Your task to perform on an android device: Go to sound settings Image 0: 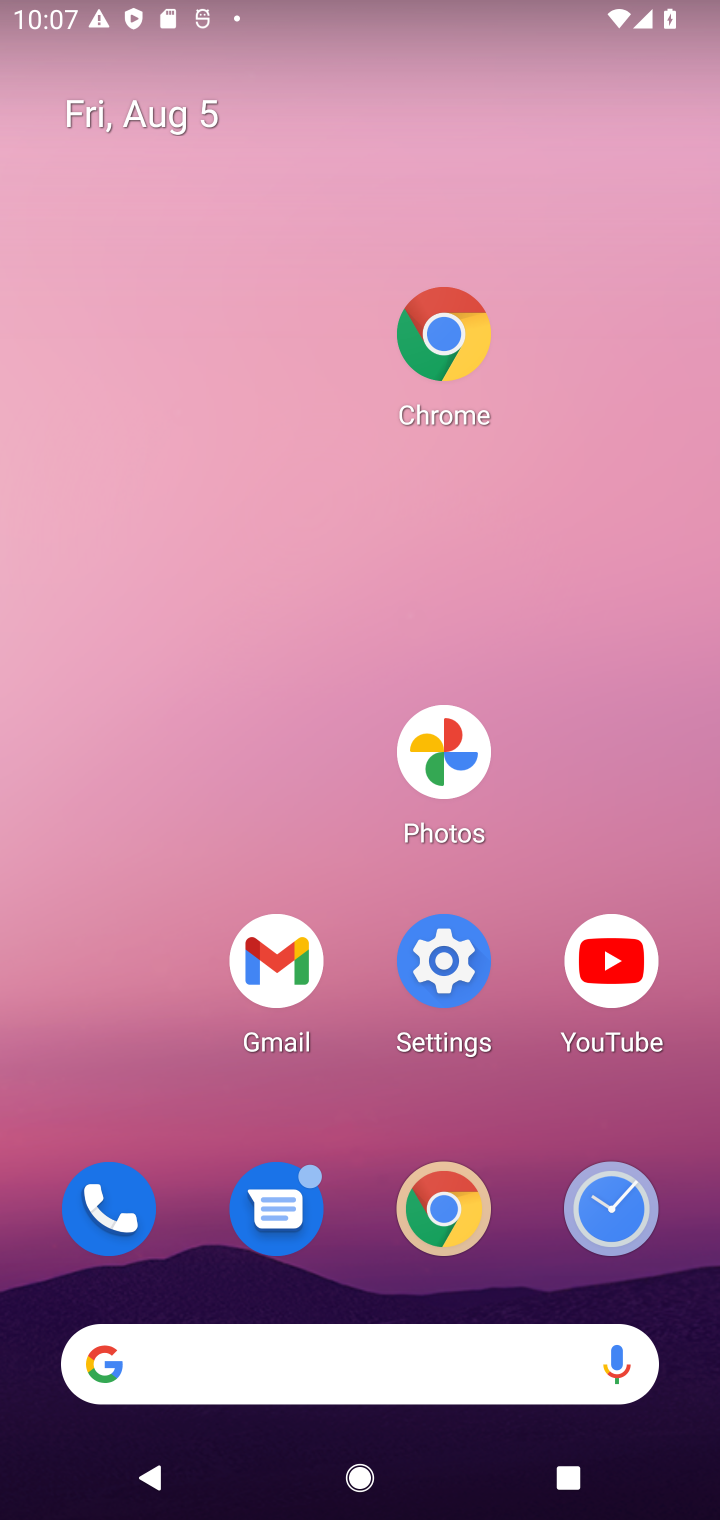
Step 0: drag from (359, 1309) to (417, 252)
Your task to perform on an android device: Go to sound settings Image 1: 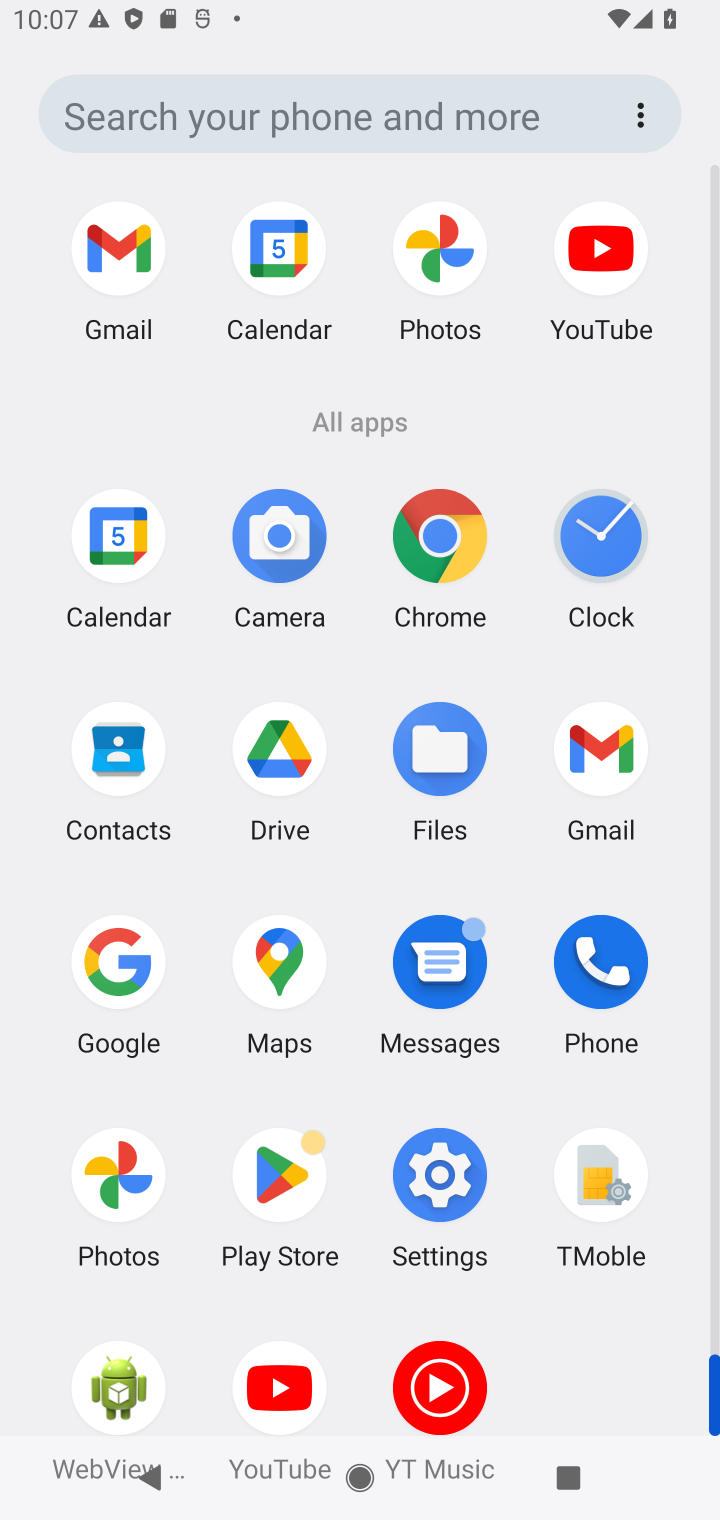
Step 1: click (443, 1175)
Your task to perform on an android device: Go to sound settings Image 2: 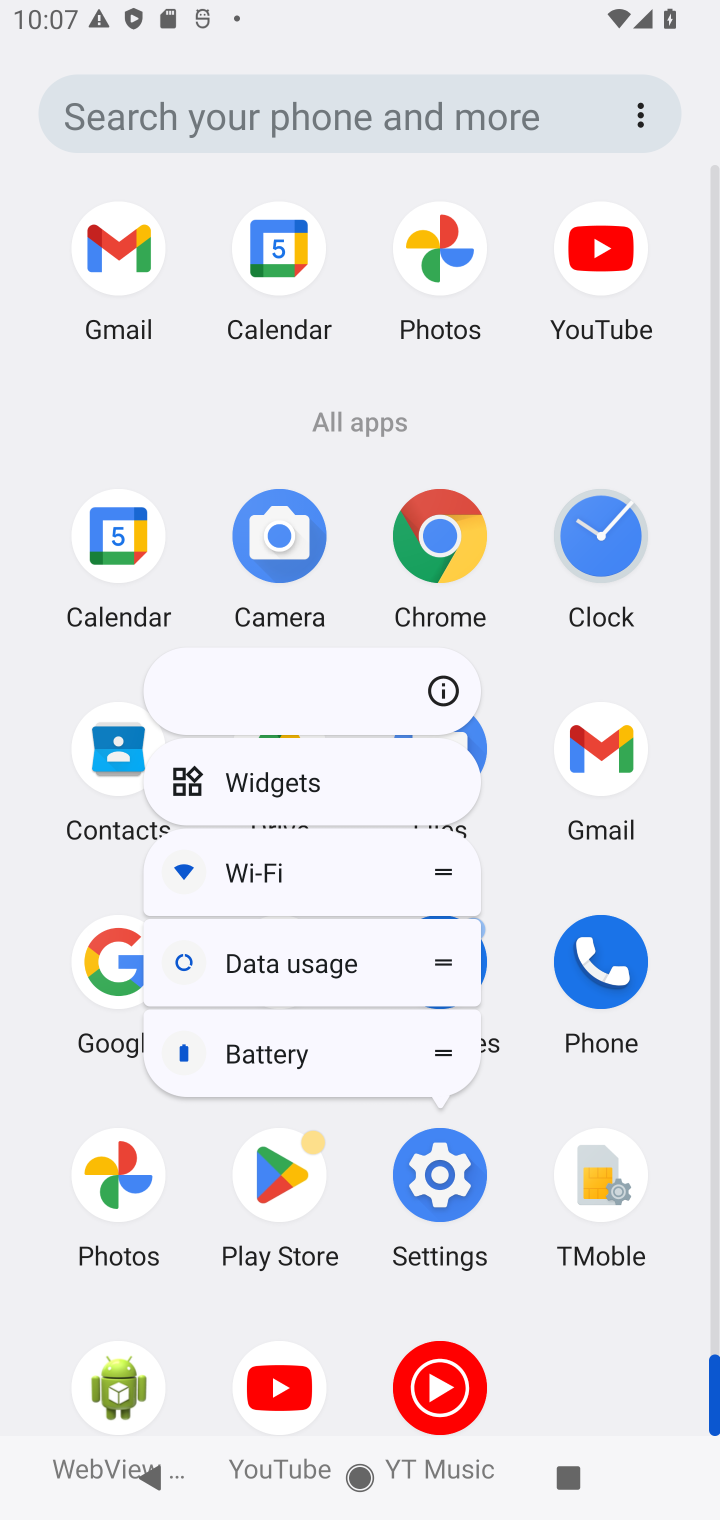
Step 2: click (447, 682)
Your task to perform on an android device: Go to sound settings Image 3: 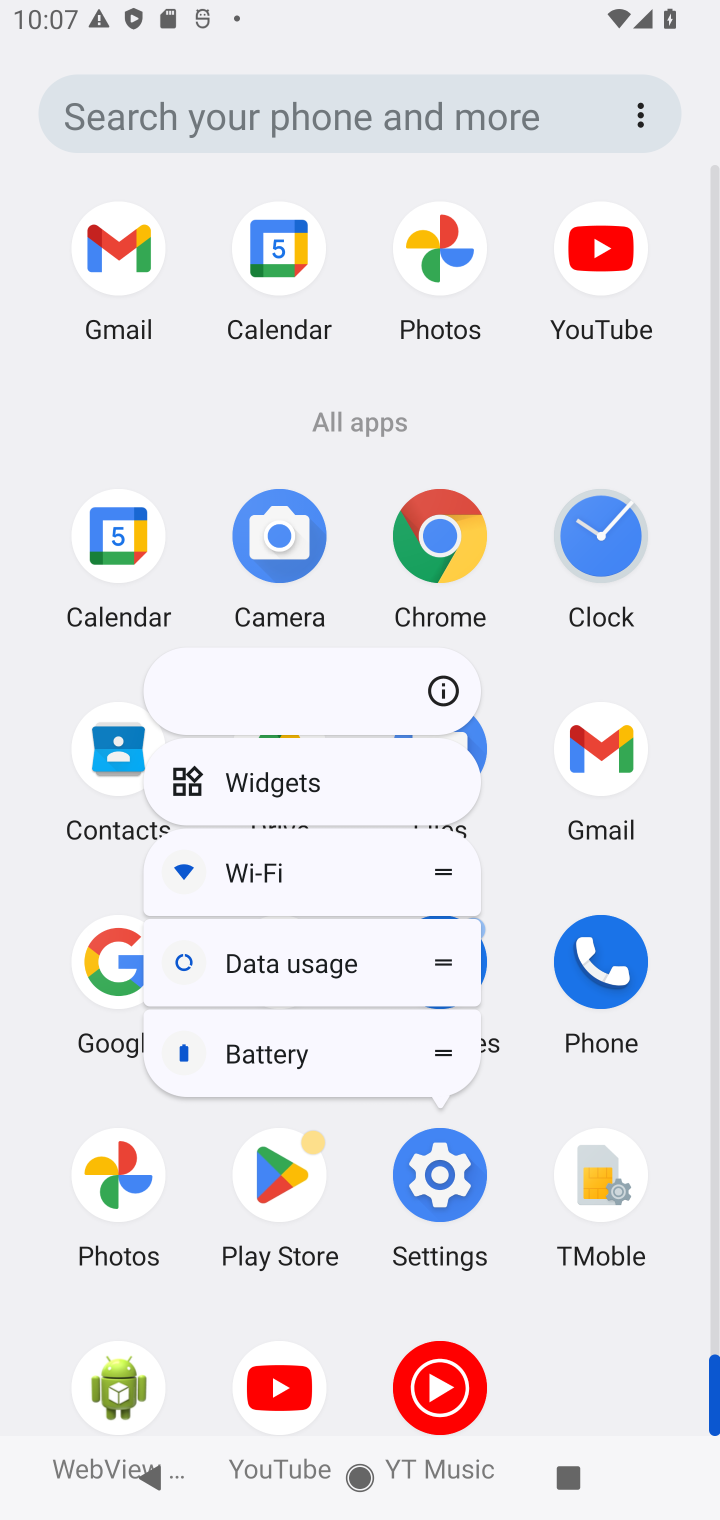
Step 3: click (443, 682)
Your task to perform on an android device: Go to sound settings Image 4: 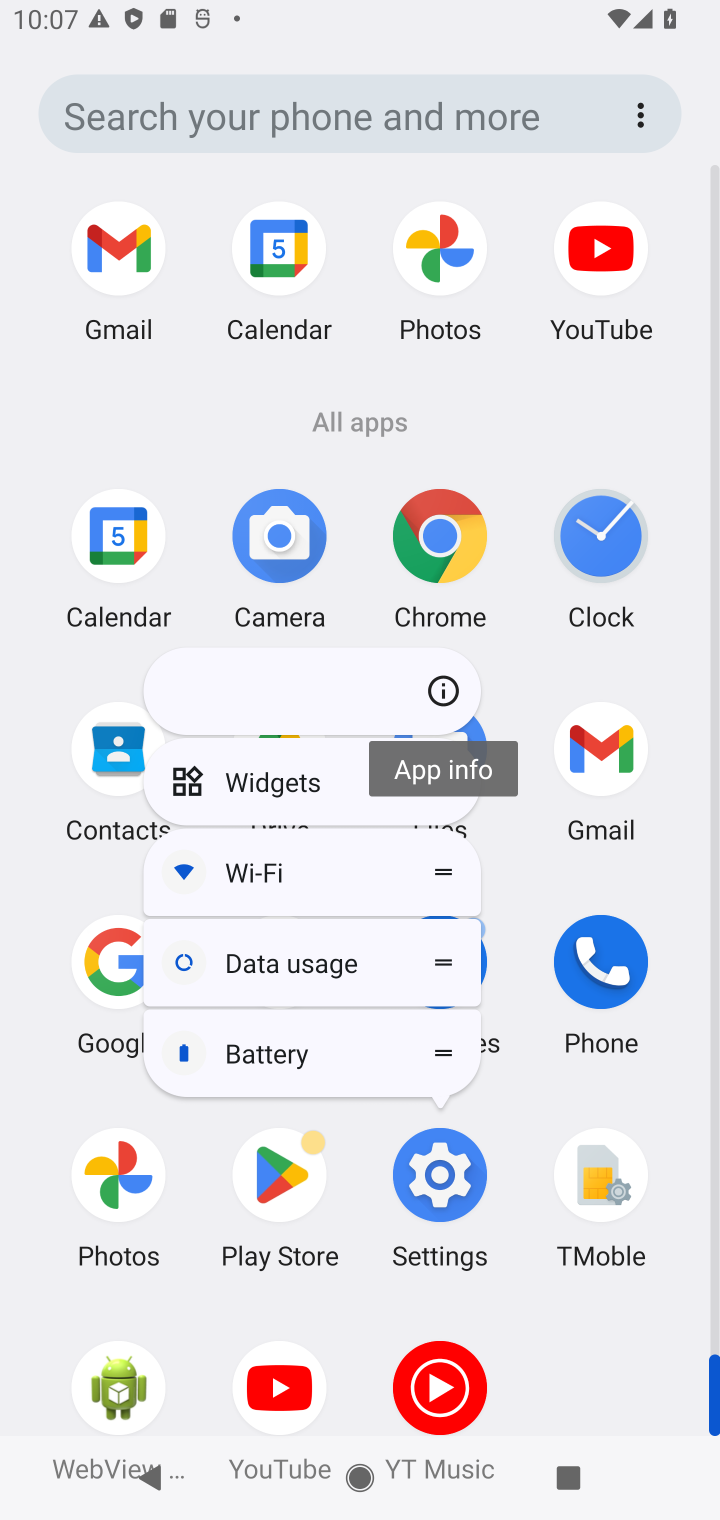
Step 4: click (443, 682)
Your task to perform on an android device: Go to sound settings Image 5: 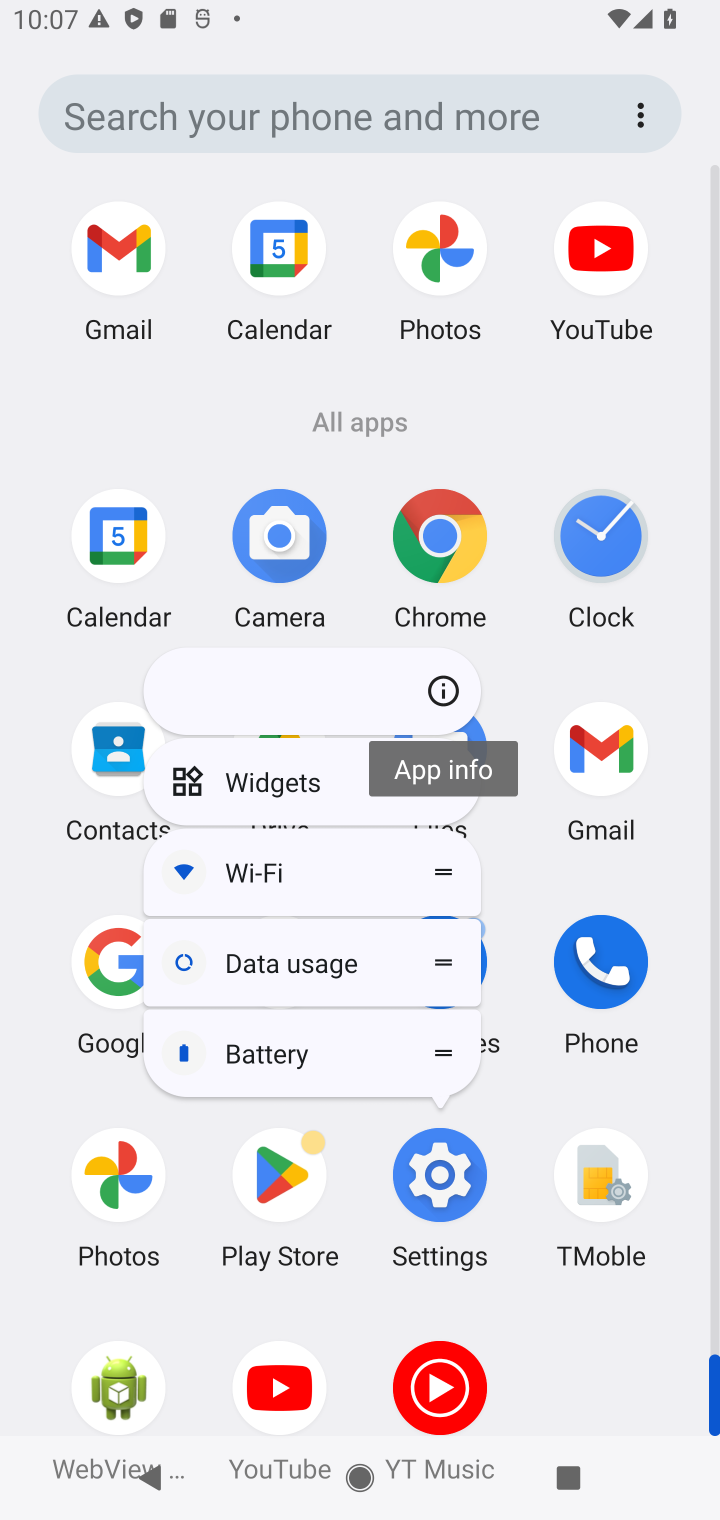
Step 5: click (445, 684)
Your task to perform on an android device: Go to sound settings Image 6: 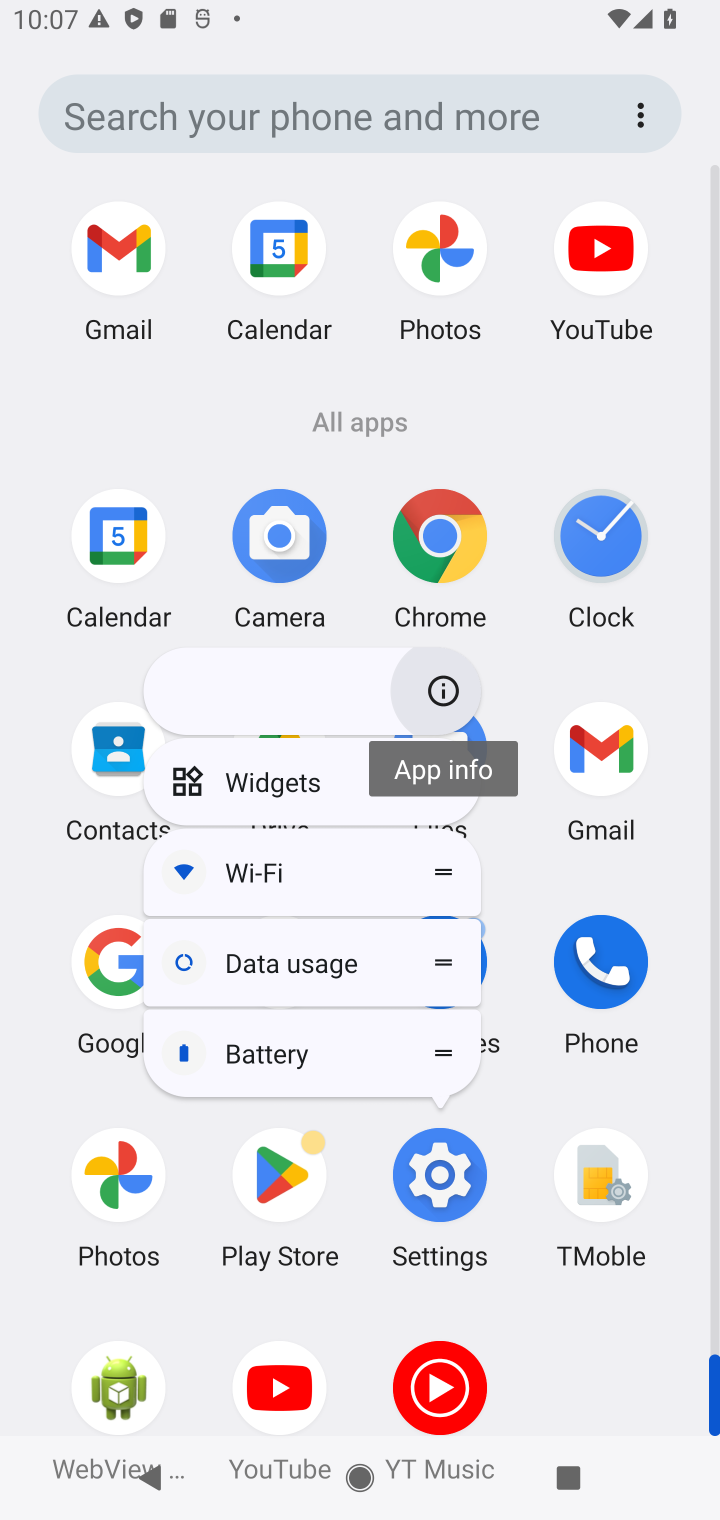
Step 6: click (427, 1182)
Your task to perform on an android device: Go to sound settings Image 7: 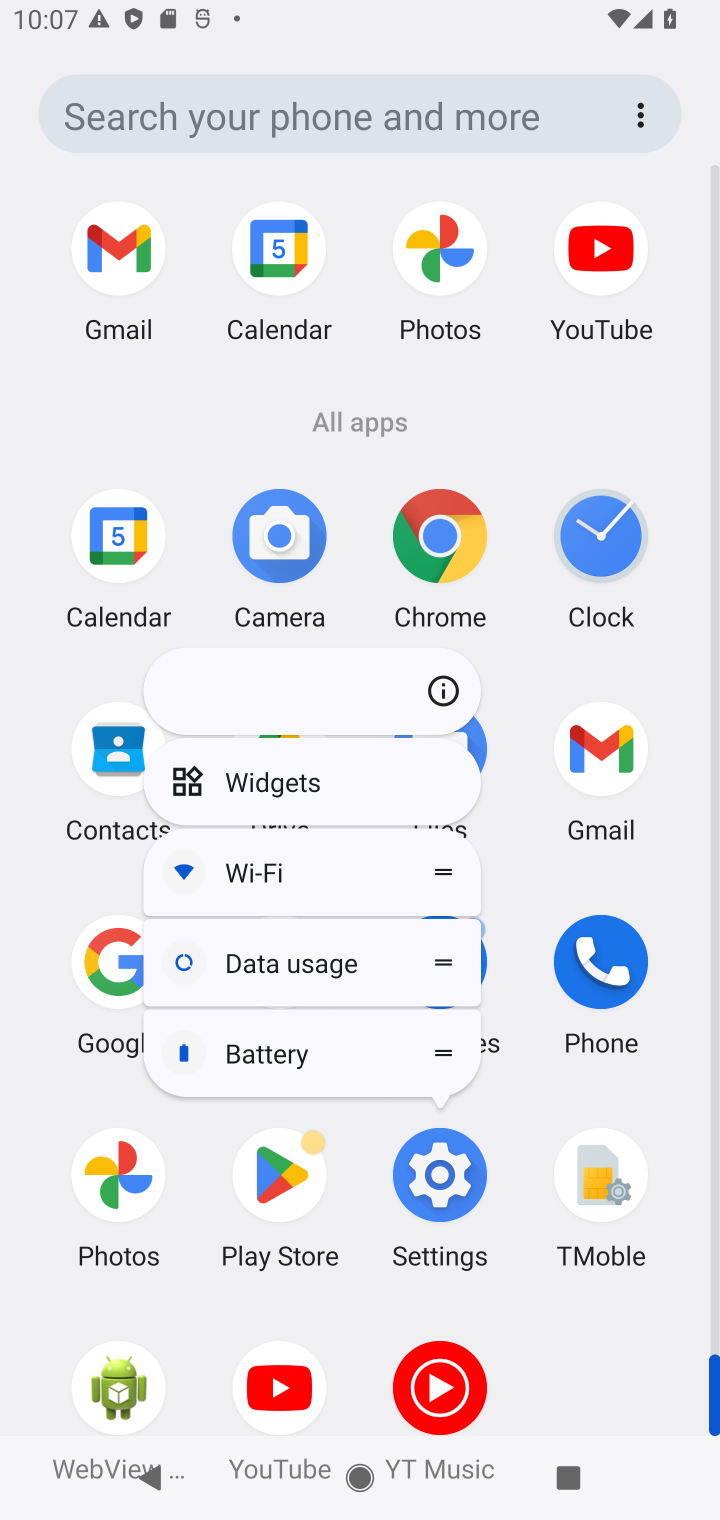
Step 7: click (427, 1182)
Your task to perform on an android device: Go to sound settings Image 8: 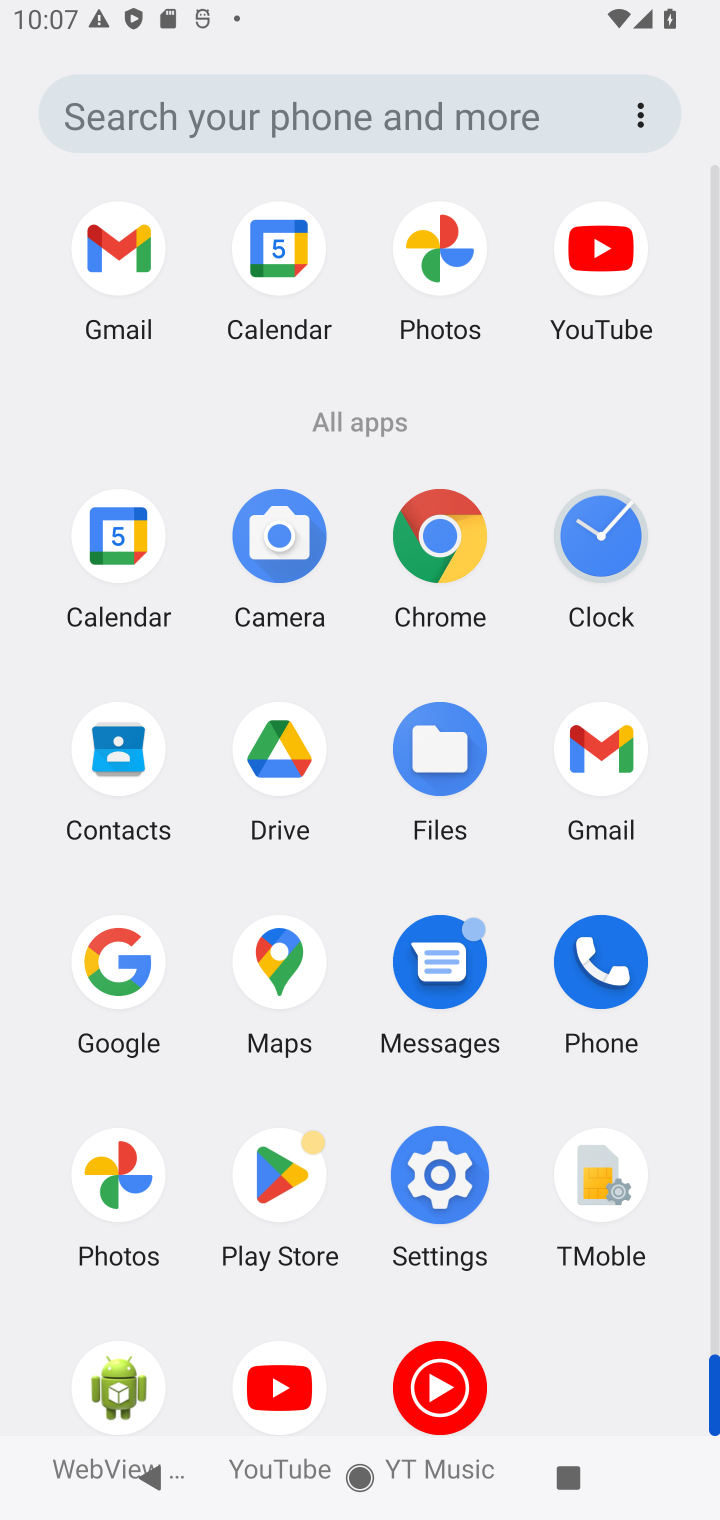
Step 8: click (425, 1180)
Your task to perform on an android device: Go to sound settings Image 9: 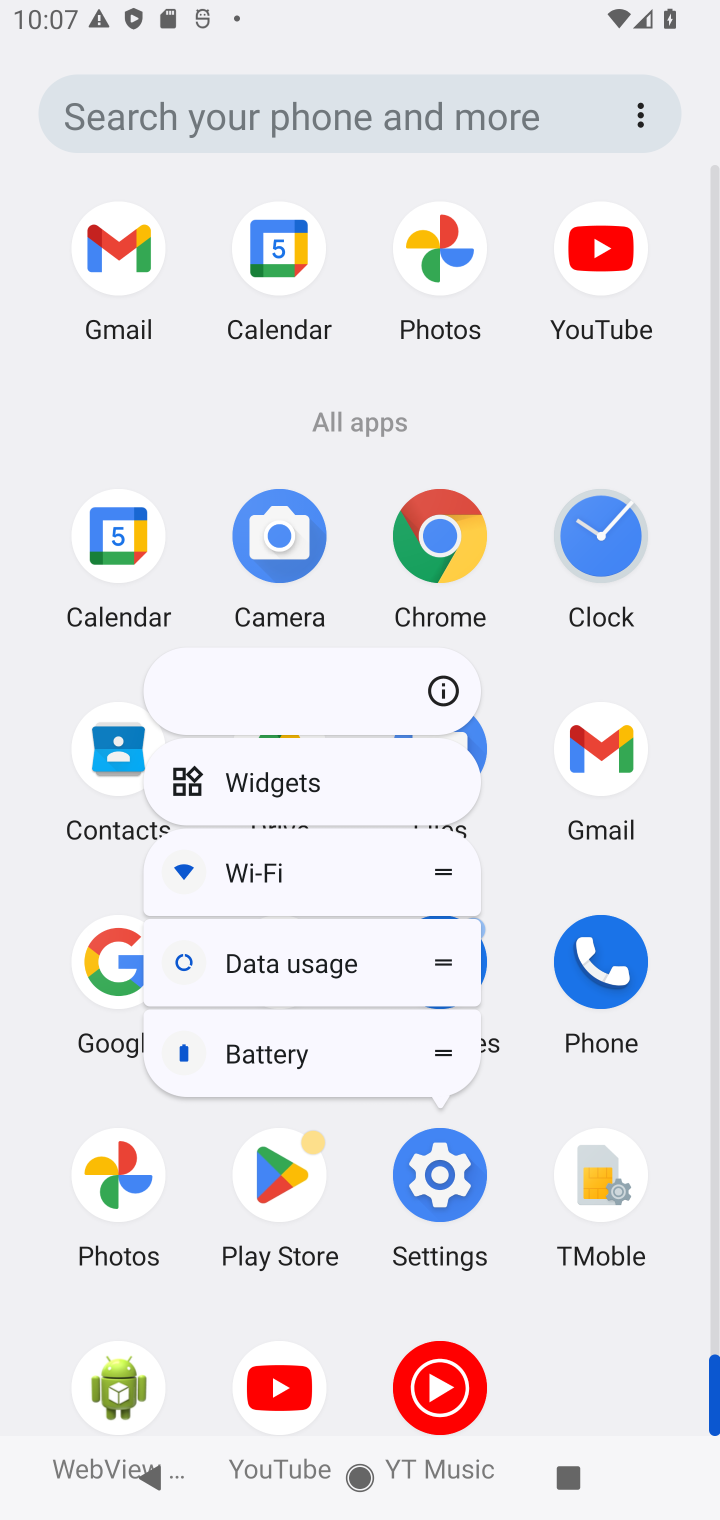
Step 9: click (459, 1148)
Your task to perform on an android device: Go to sound settings Image 10: 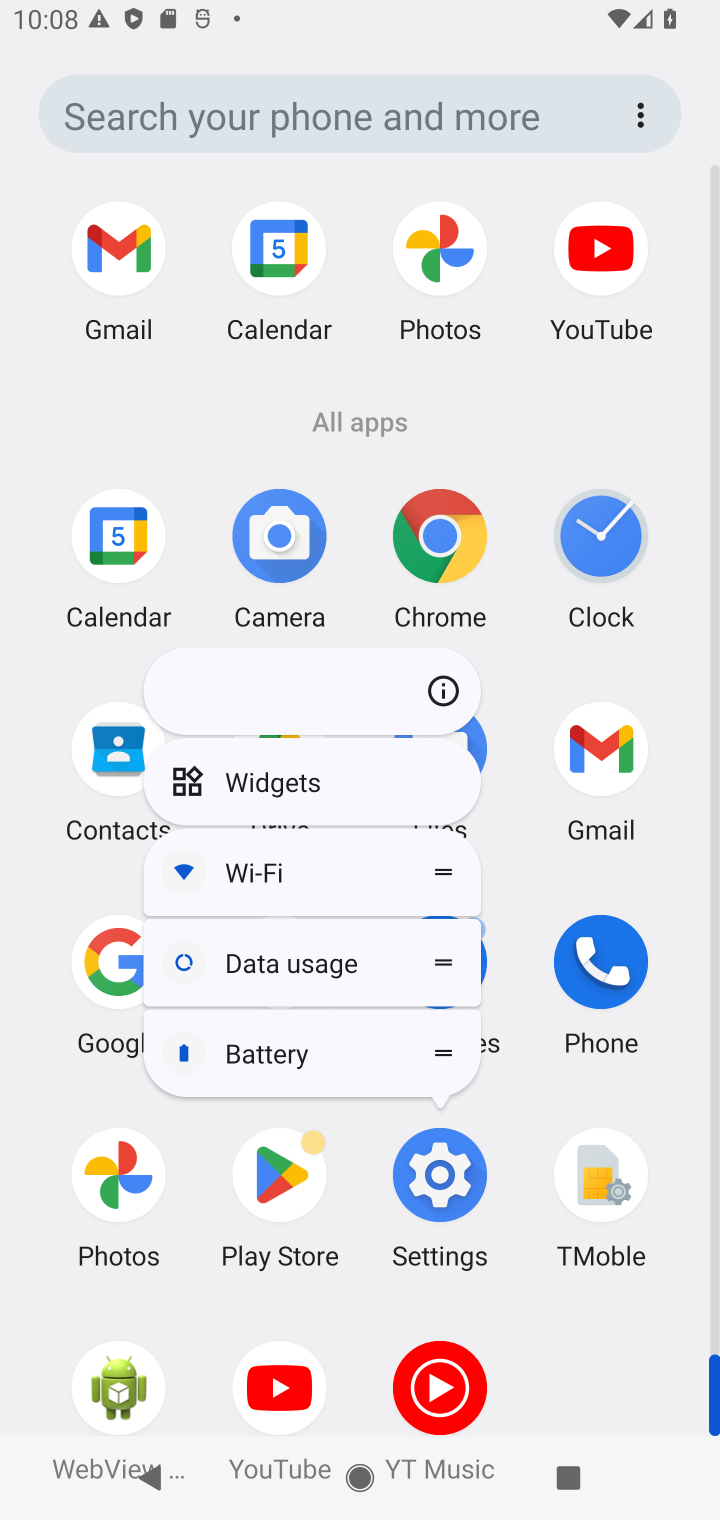
Step 10: click (438, 687)
Your task to perform on an android device: Go to sound settings Image 11: 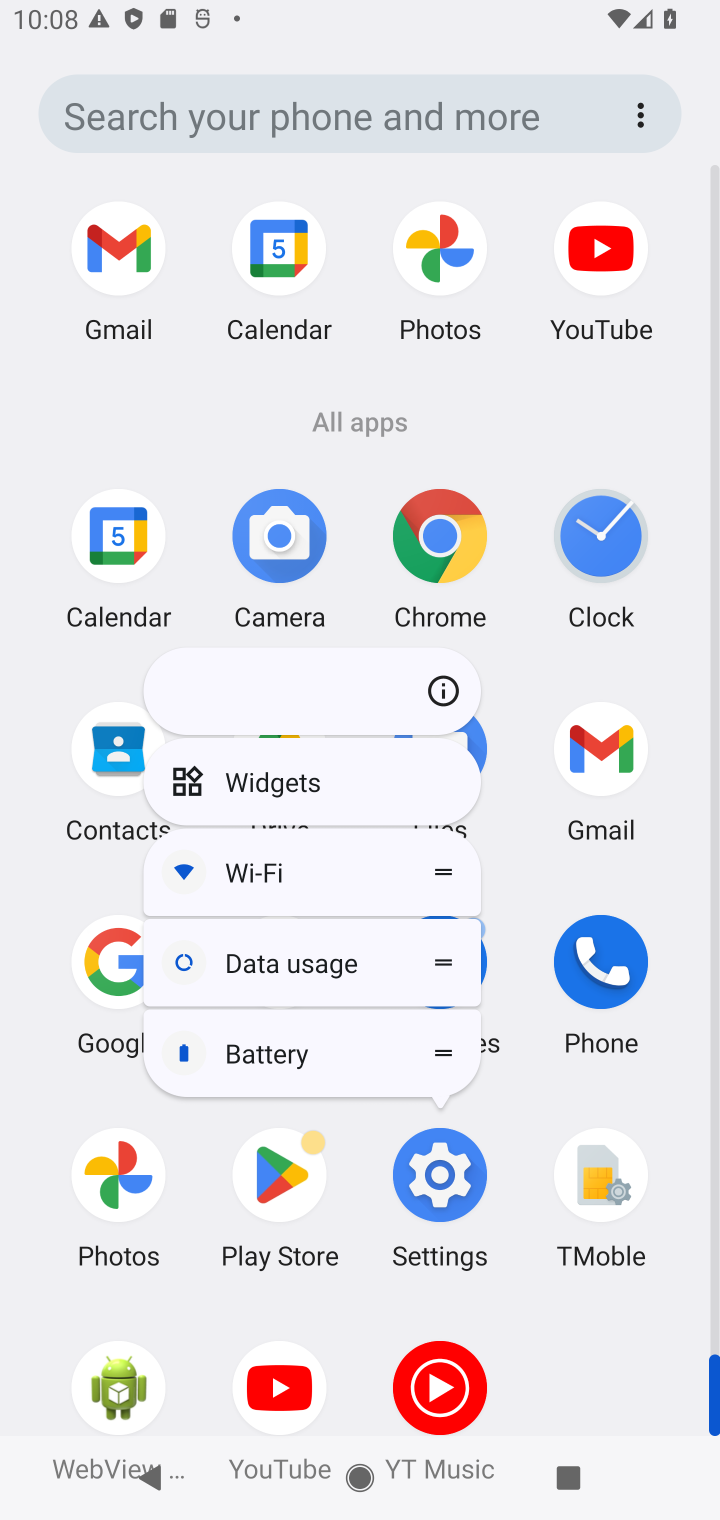
Step 11: click (455, 681)
Your task to perform on an android device: Go to sound settings Image 12: 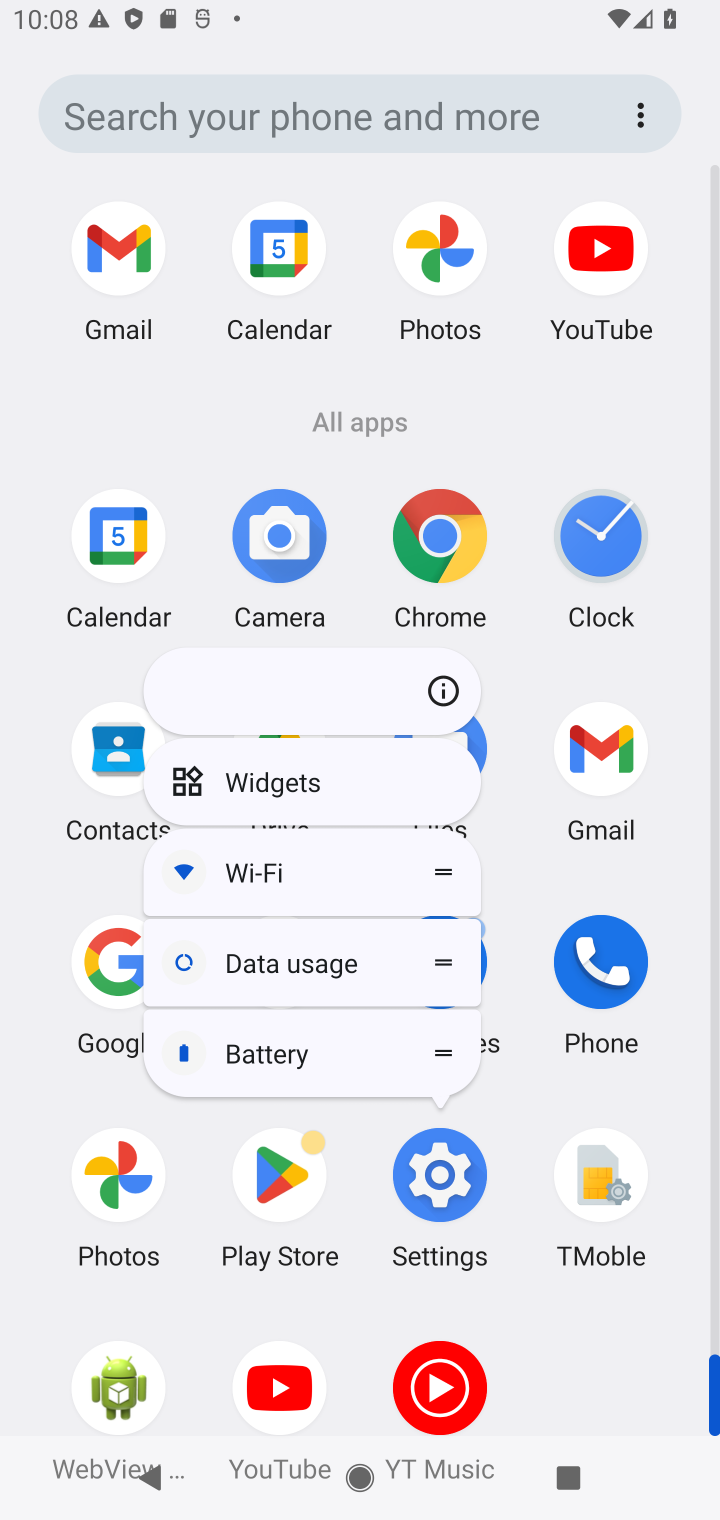
Step 12: click (455, 682)
Your task to perform on an android device: Go to sound settings Image 13: 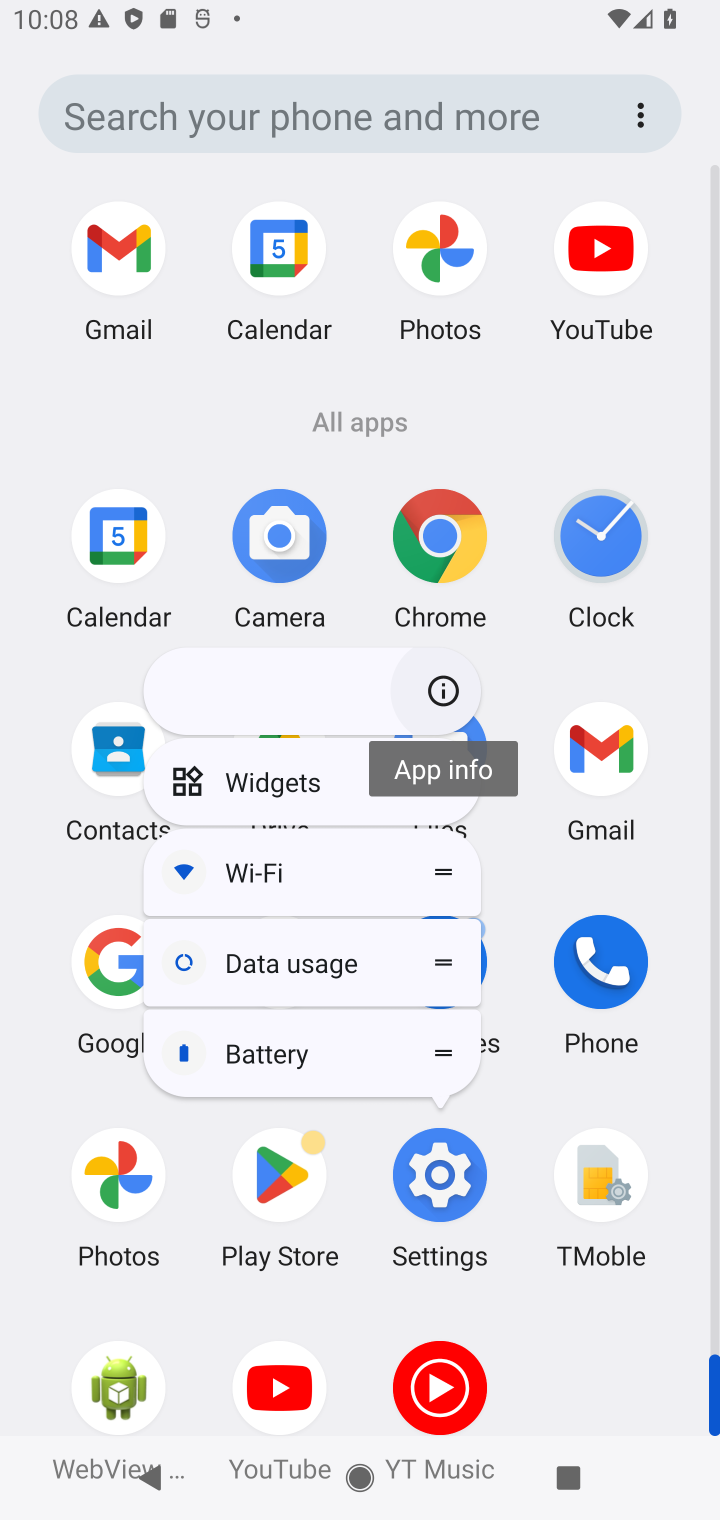
Step 13: click (455, 682)
Your task to perform on an android device: Go to sound settings Image 14: 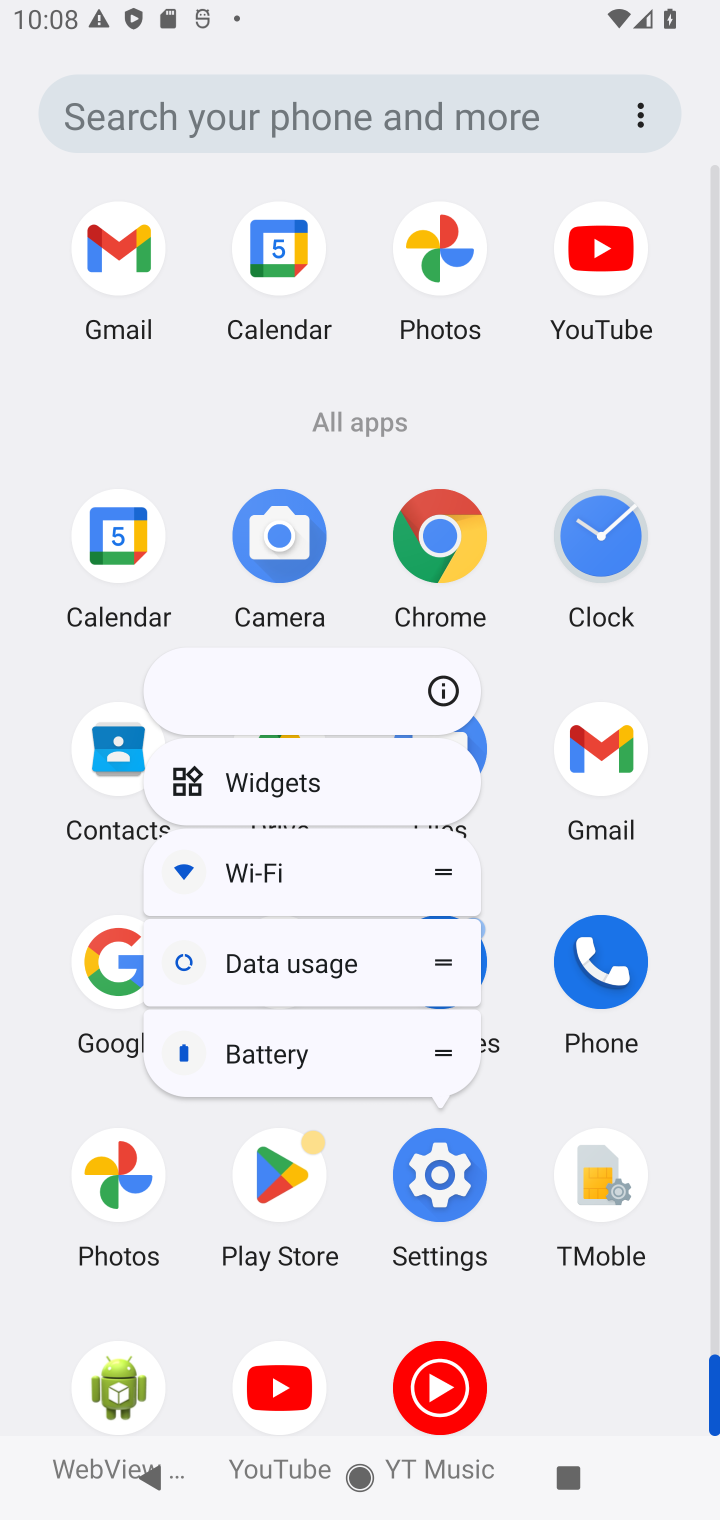
Step 14: click (451, 1184)
Your task to perform on an android device: Go to sound settings Image 15: 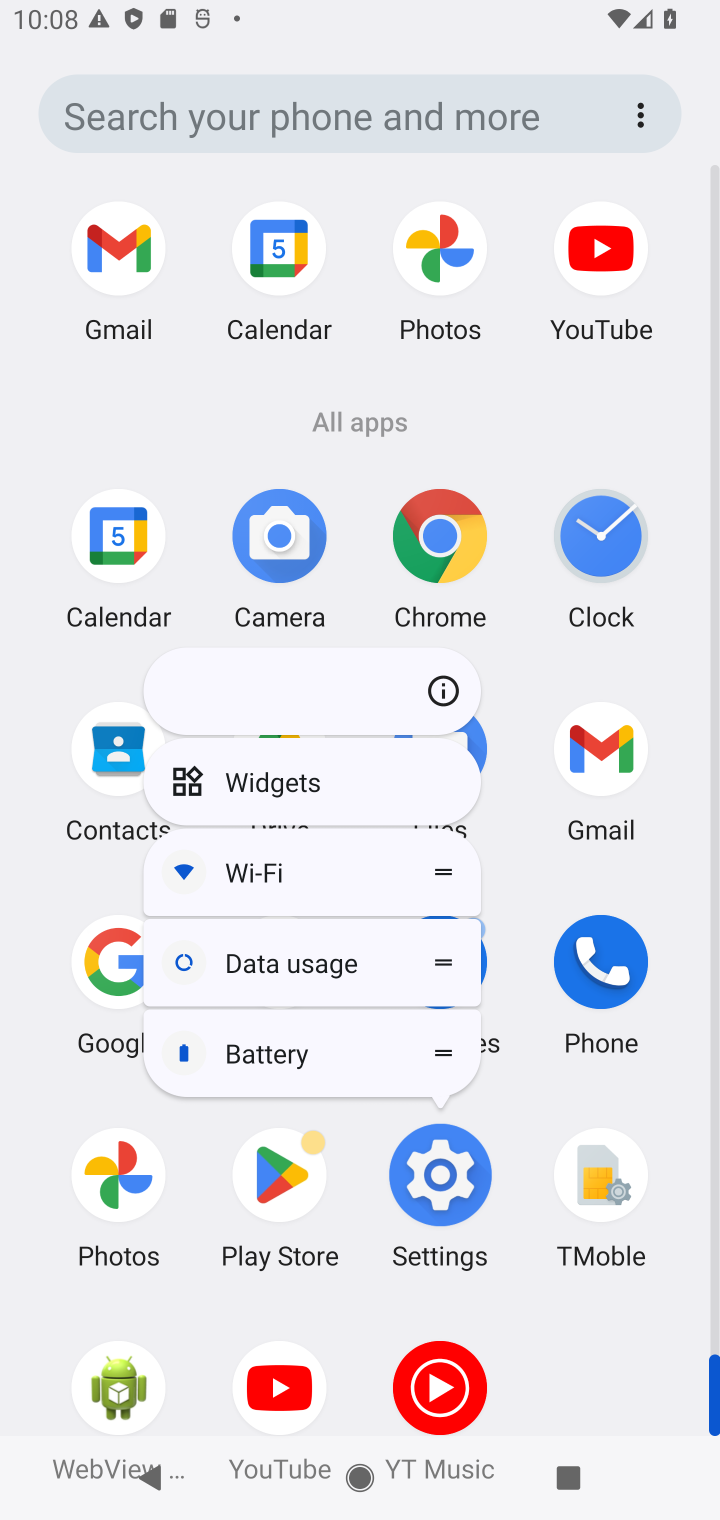
Step 15: click (445, 1184)
Your task to perform on an android device: Go to sound settings Image 16: 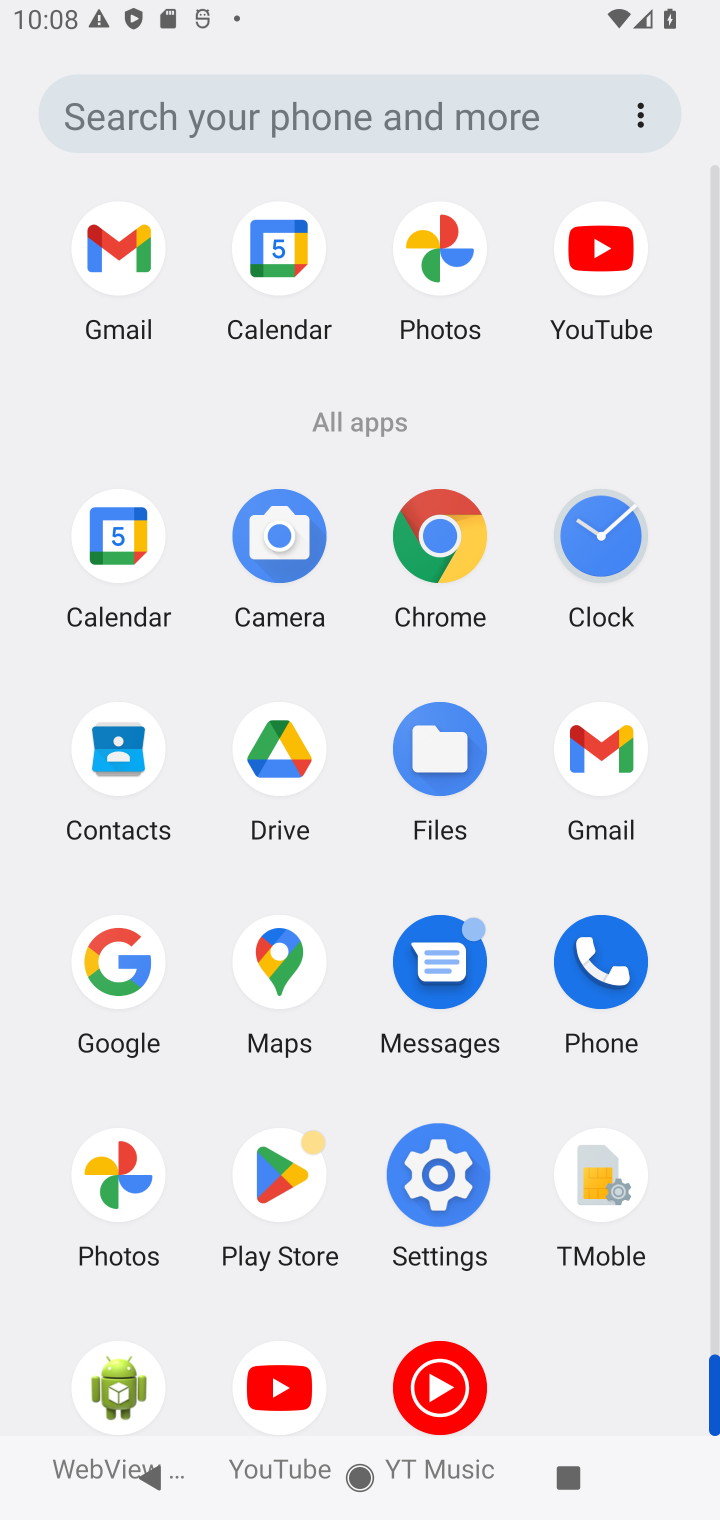
Step 16: click (443, 1184)
Your task to perform on an android device: Go to sound settings Image 17: 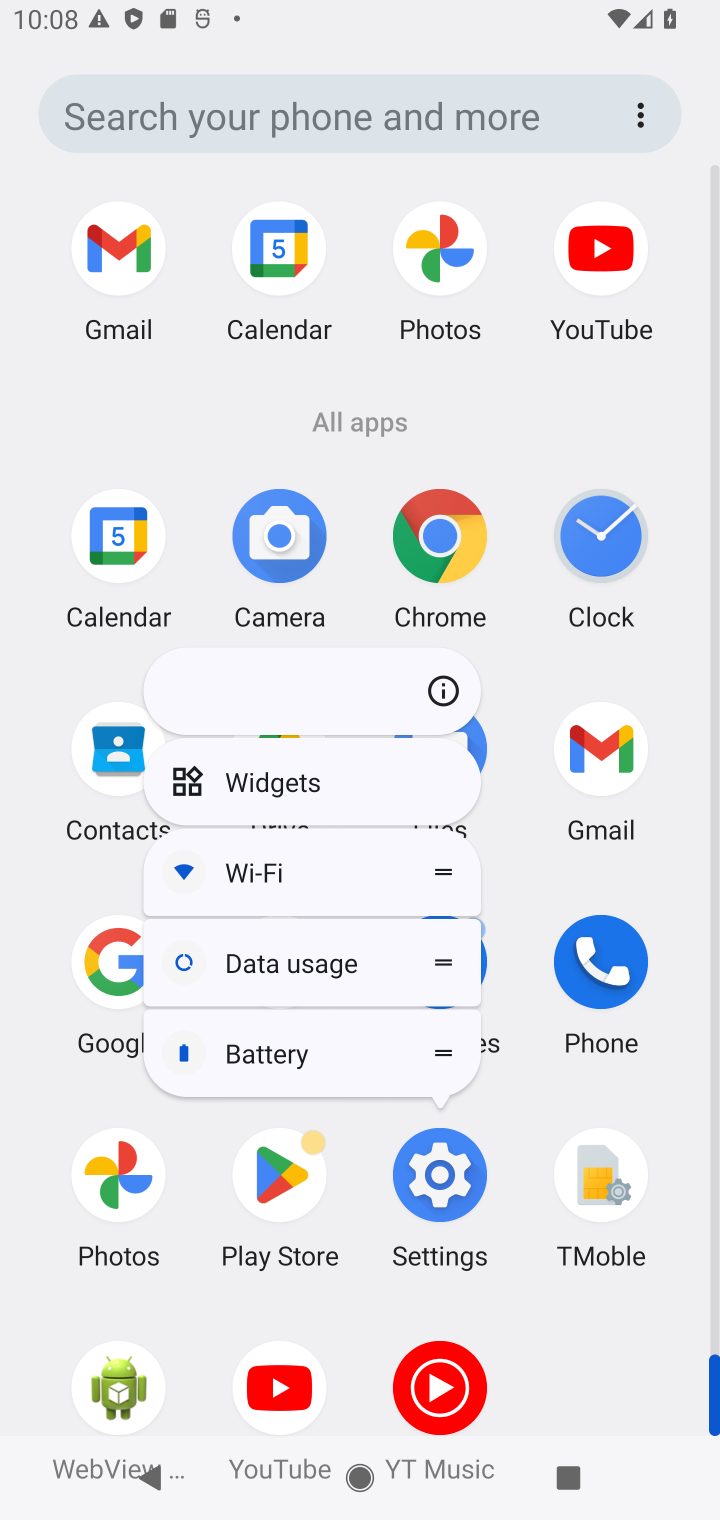
Step 17: click (443, 1184)
Your task to perform on an android device: Go to sound settings Image 18: 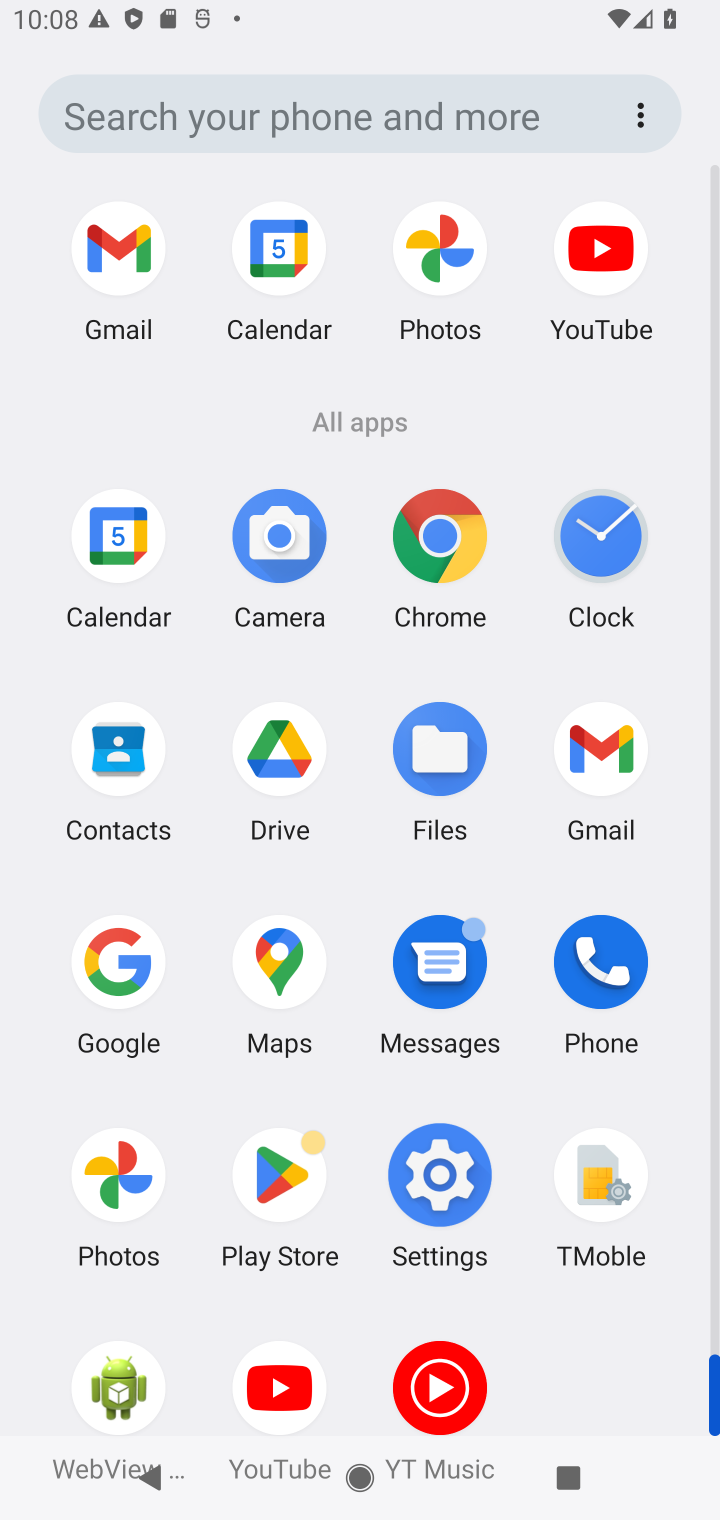
Step 18: click (443, 1184)
Your task to perform on an android device: Go to sound settings Image 19: 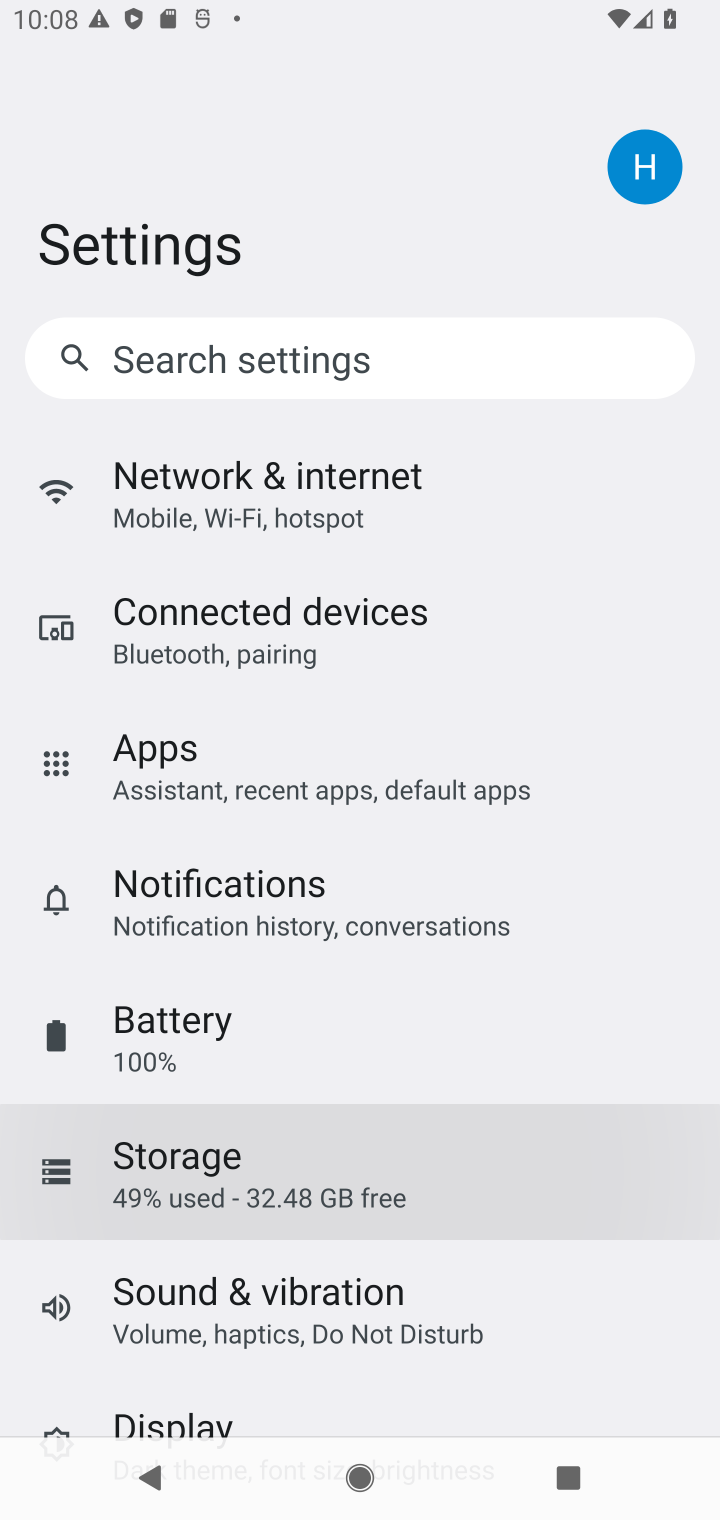
Step 19: drag from (443, 1180) to (534, 290)
Your task to perform on an android device: Go to sound settings Image 20: 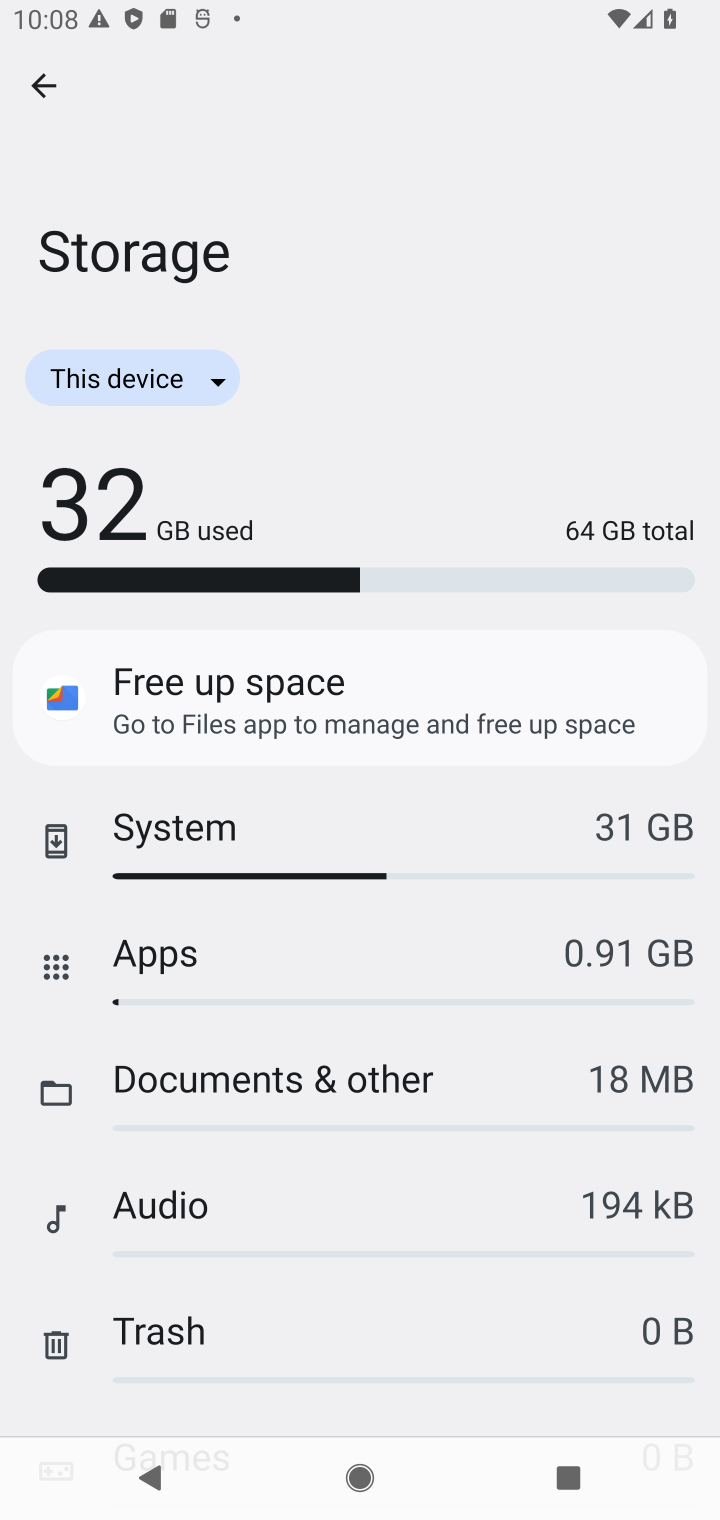
Step 20: press back button
Your task to perform on an android device: Go to sound settings Image 21: 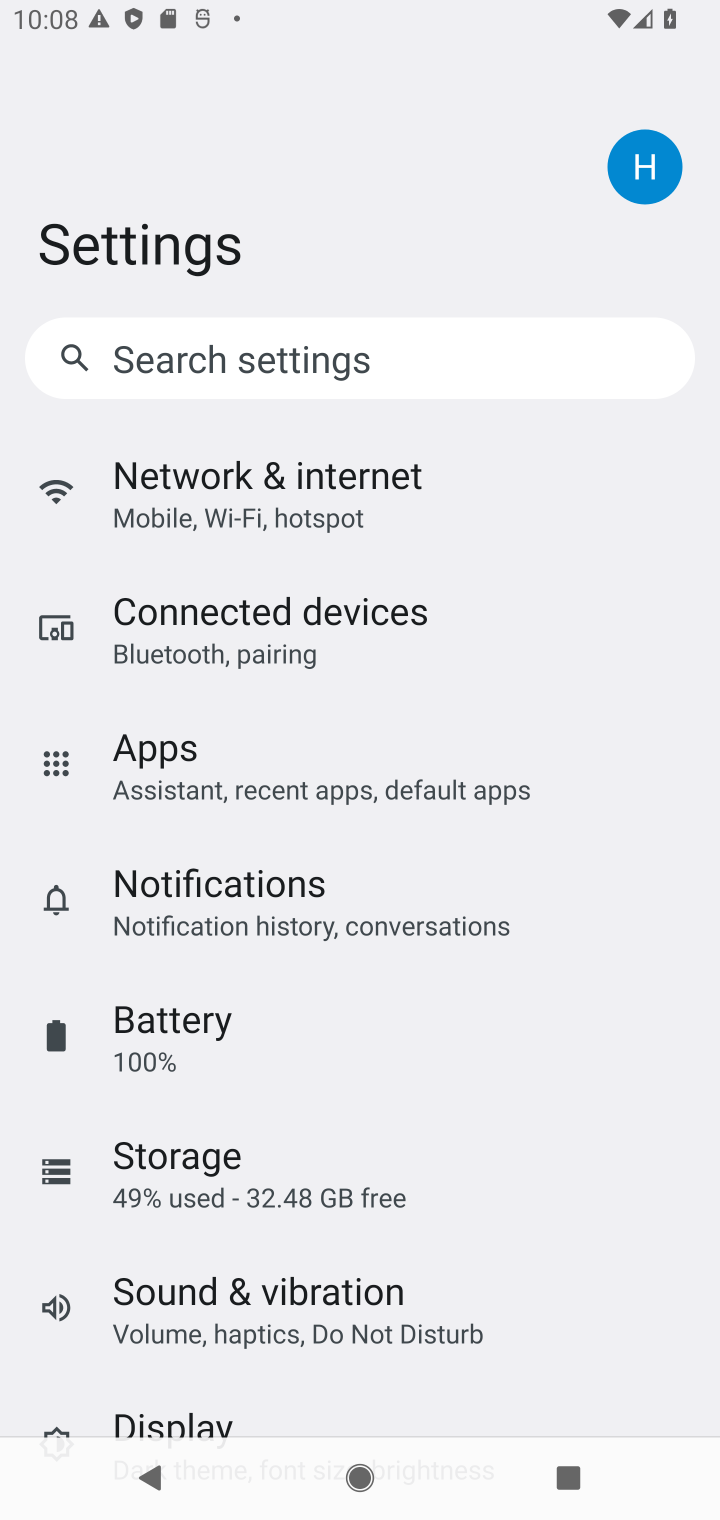
Step 21: drag from (417, 1097) to (557, 172)
Your task to perform on an android device: Go to sound settings Image 22: 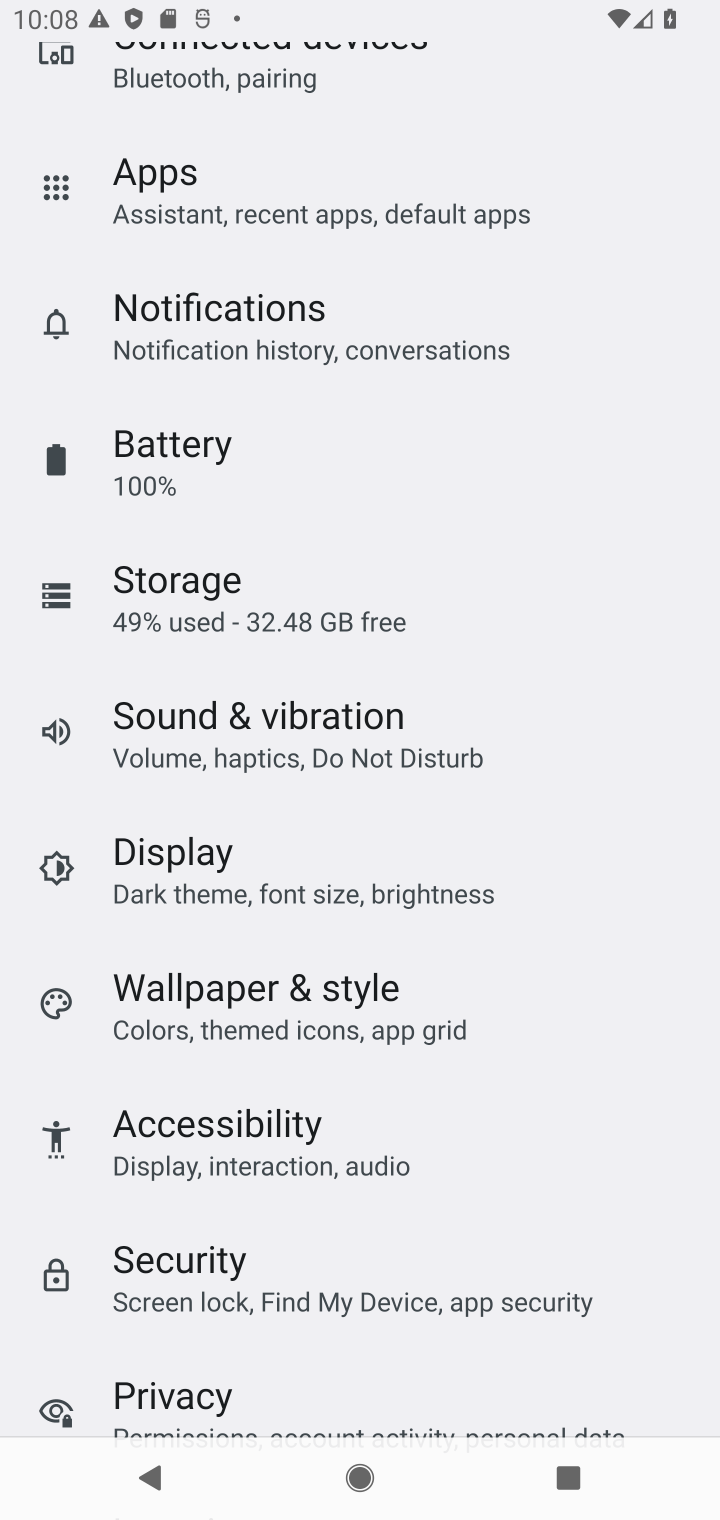
Step 22: drag from (278, 1255) to (417, 513)
Your task to perform on an android device: Go to sound settings Image 23: 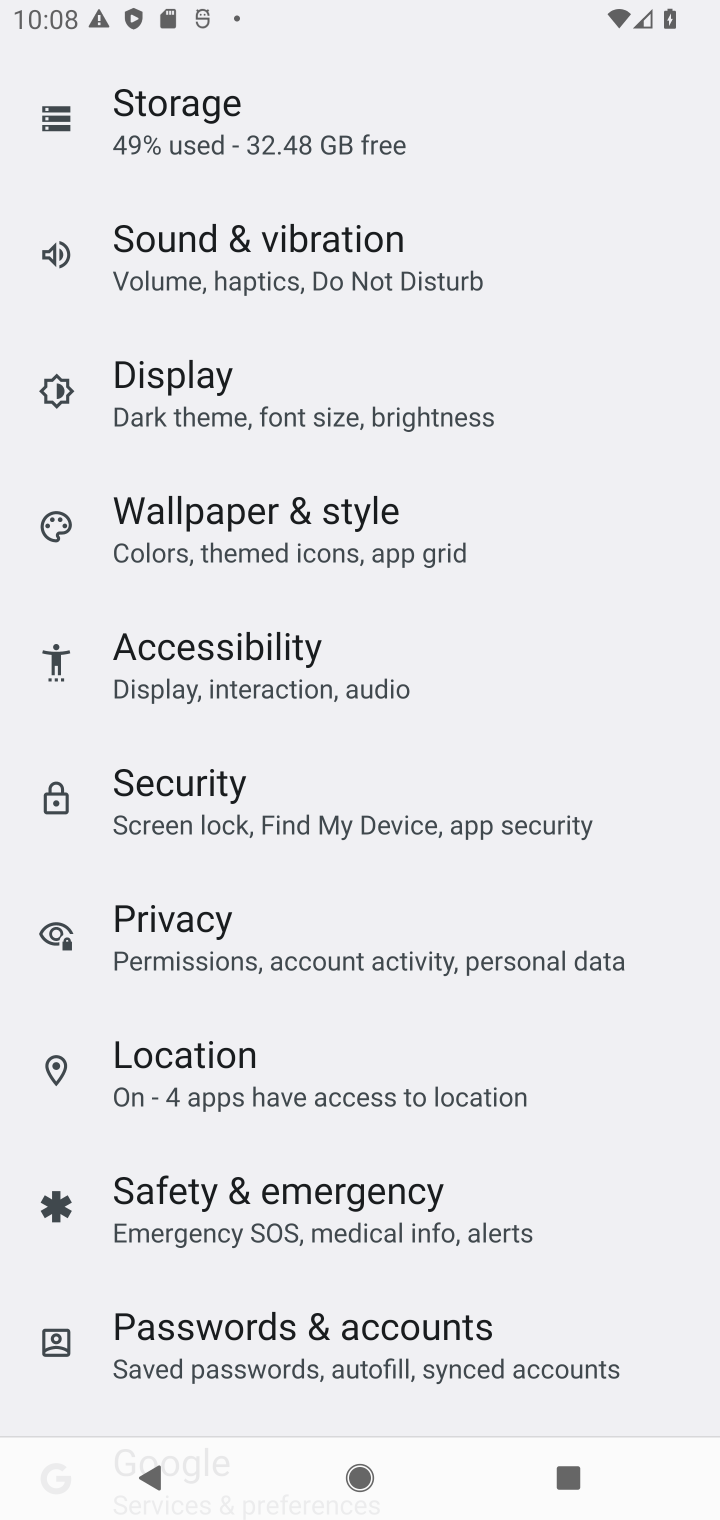
Step 23: drag from (376, 382) to (455, 1469)
Your task to perform on an android device: Go to sound settings Image 24: 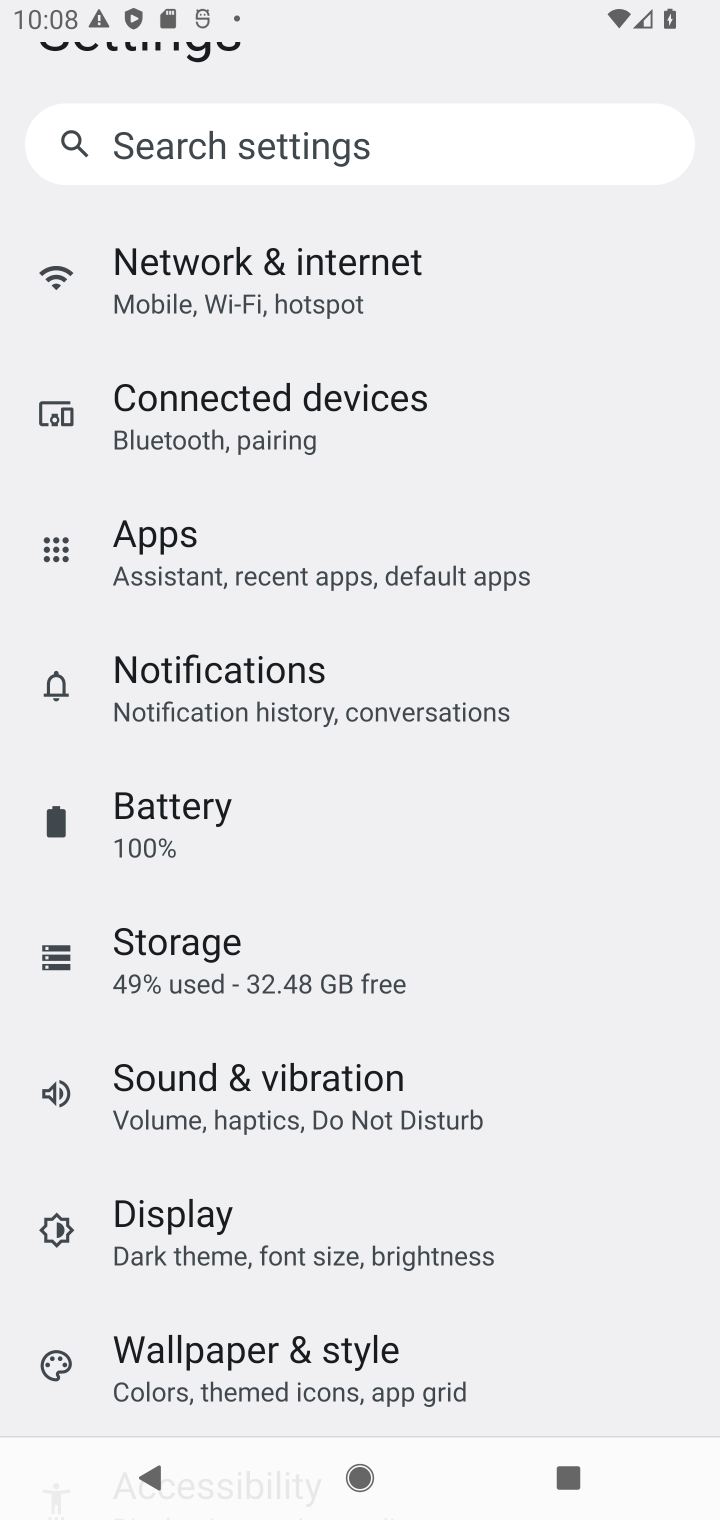
Step 24: click (238, 1108)
Your task to perform on an android device: Go to sound settings Image 25: 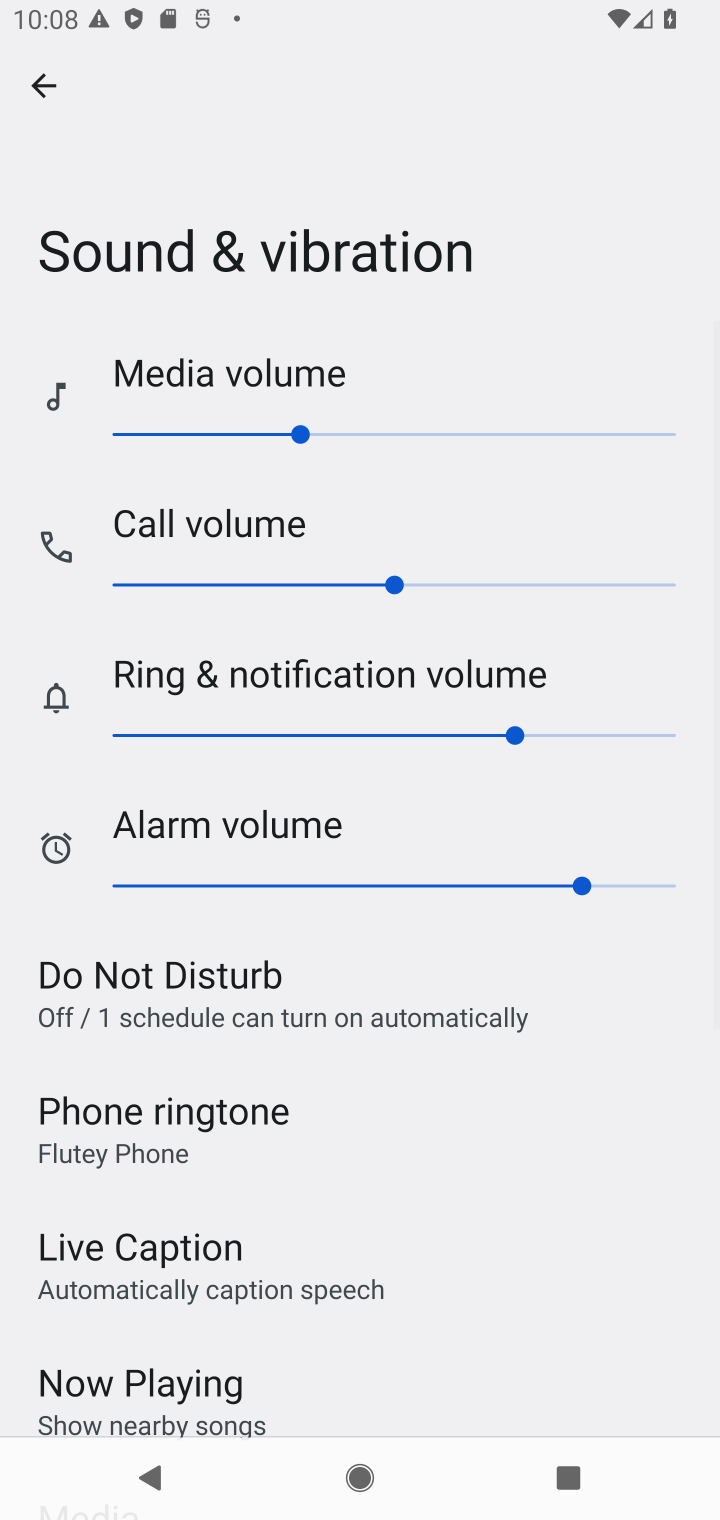
Step 25: task complete